Your task to perform on an android device: turn off airplane mode Image 0: 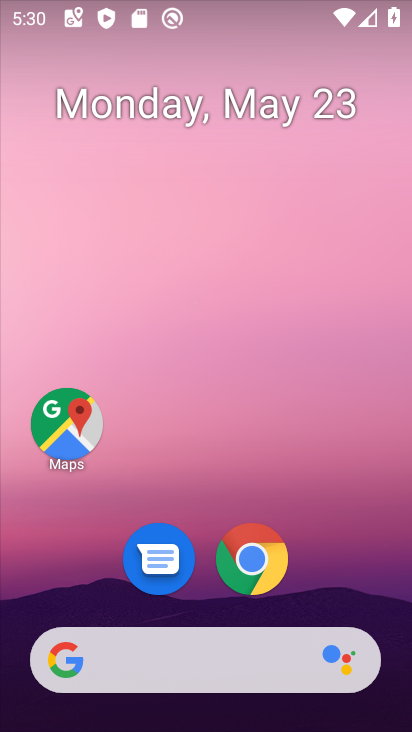
Step 0: drag from (150, 662) to (262, 1)
Your task to perform on an android device: turn off airplane mode Image 1: 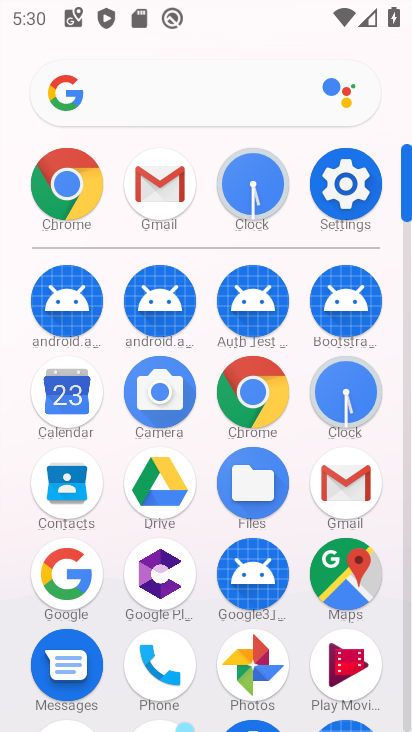
Step 1: click (341, 158)
Your task to perform on an android device: turn off airplane mode Image 2: 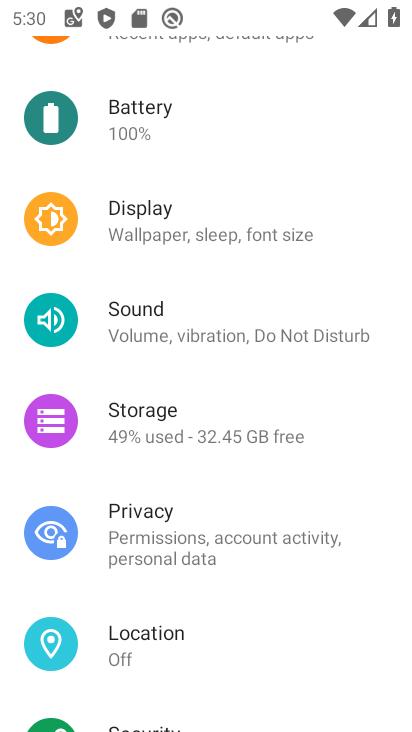
Step 2: drag from (210, 187) to (258, 729)
Your task to perform on an android device: turn off airplane mode Image 3: 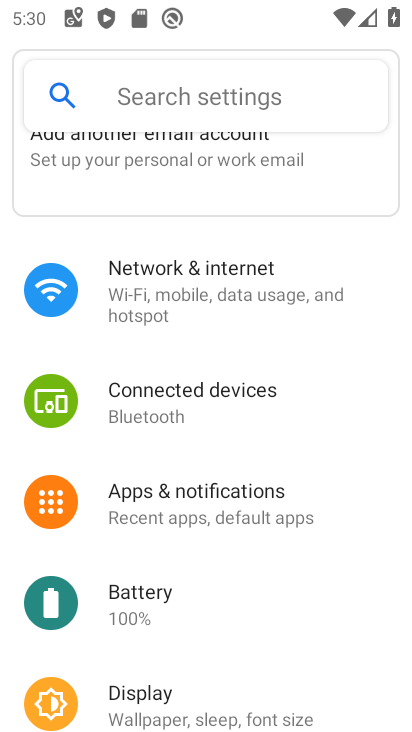
Step 3: click (258, 274)
Your task to perform on an android device: turn off airplane mode Image 4: 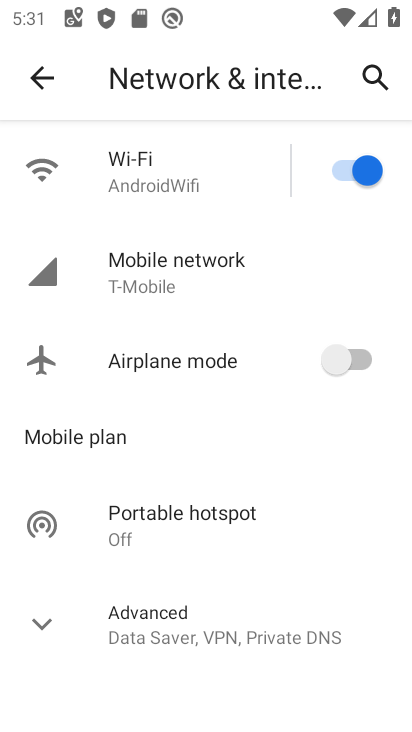
Step 4: task complete